Your task to perform on an android device: change the clock display to analog Image 0: 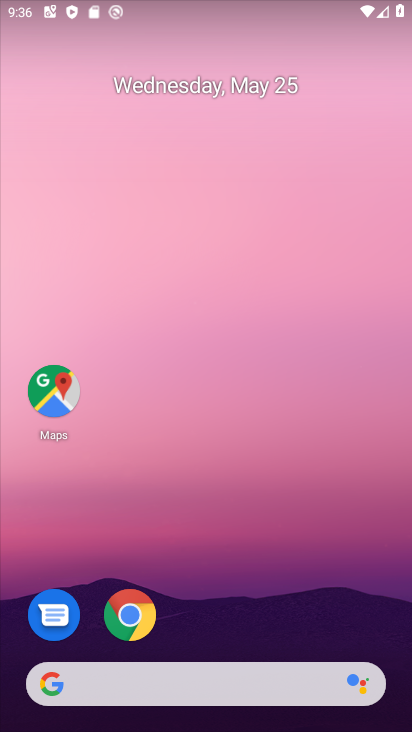
Step 0: drag from (274, 544) to (284, 31)
Your task to perform on an android device: change the clock display to analog Image 1: 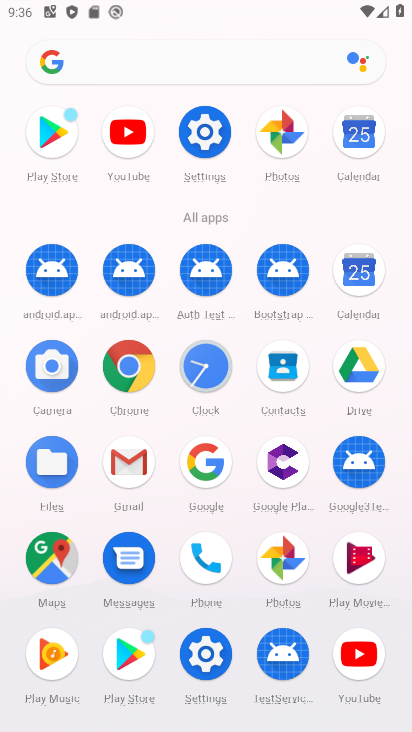
Step 1: click (208, 354)
Your task to perform on an android device: change the clock display to analog Image 2: 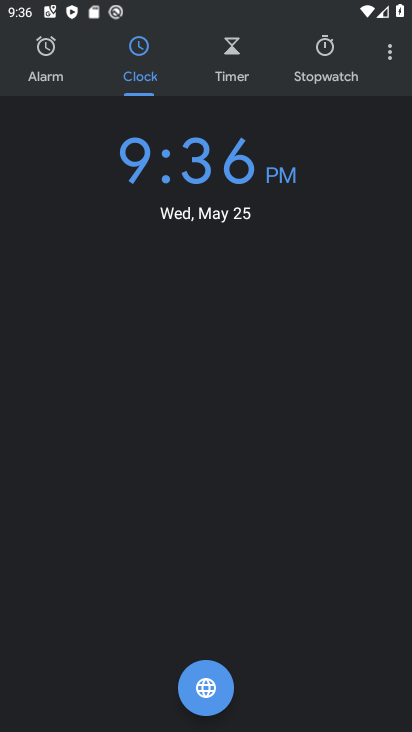
Step 2: click (396, 57)
Your task to perform on an android device: change the clock display to analog Image 3: 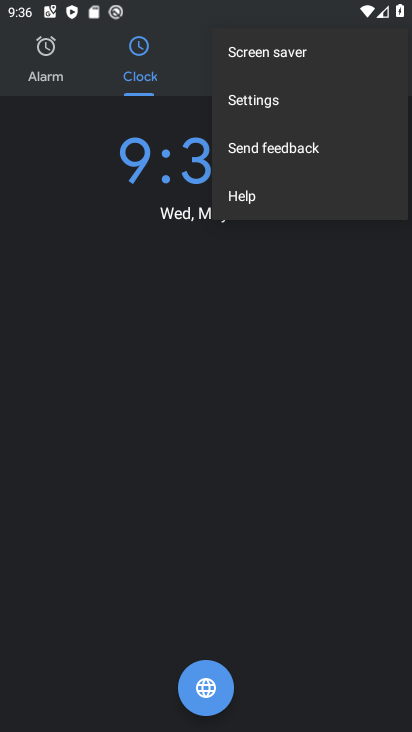
Step 3: click (326, 106)
Your task to perform on an android device: change the clock display to analog Image 4: 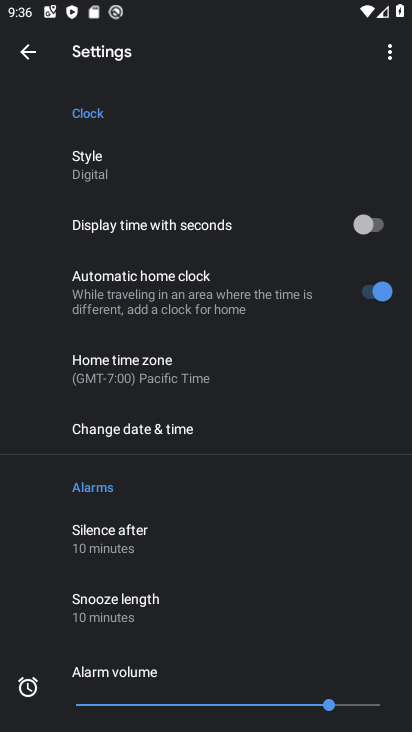
Step 4: click (112, 174)
Your task to perform on an android device: change the clock display to analog Image 5: 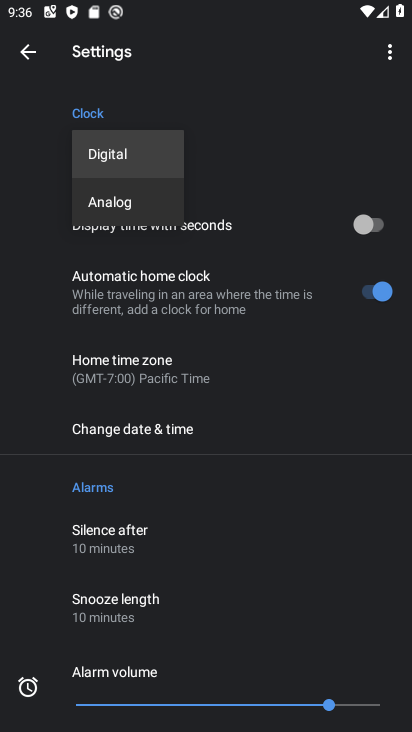
Step 5: click (114, 201)
Your task to perform on an android device: change the clock display to analog Image 6: 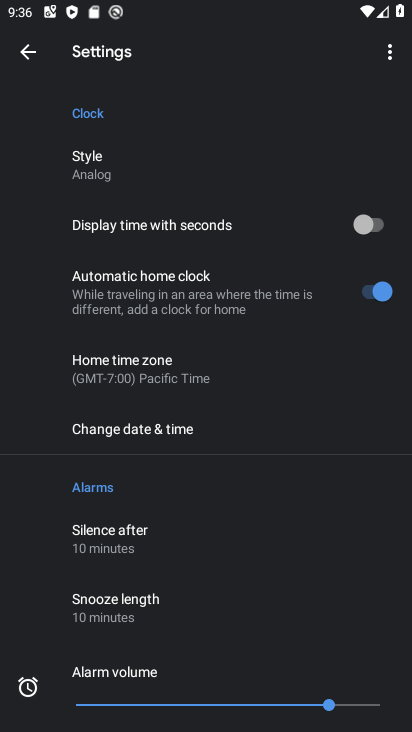
Step 6: click (25, 53)
Your task to perform on an android device: change the clock display to analog Image 7: 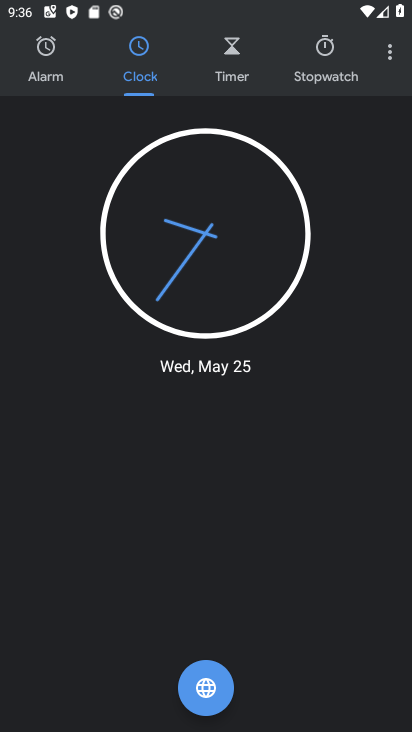
Step 7: task complete